Your task to perform on an android device: Go to ESPN.com Image 0: 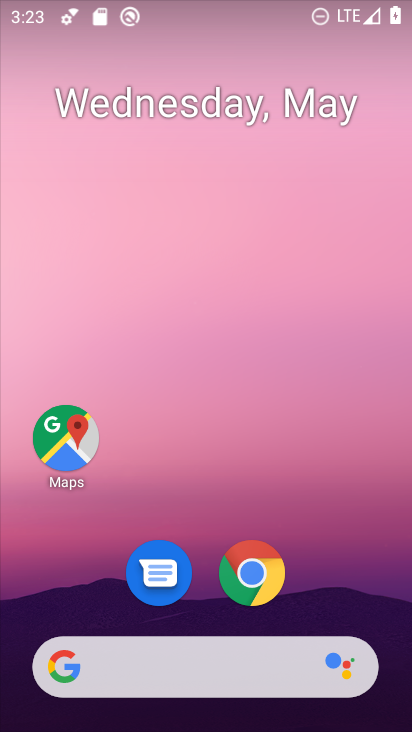
Step 0: click (247, 574)
Your task to perform on an android device: Go to ESPN.com Image 1: 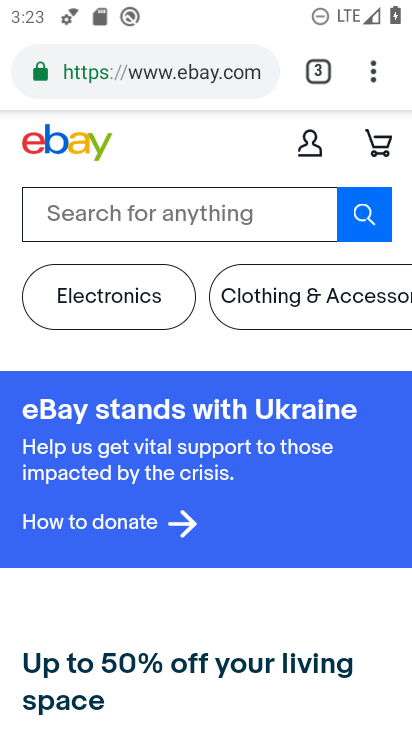
Step 1: click (161, 72)
Your task to perform on an android device: Go to ESPN.com Image 2: 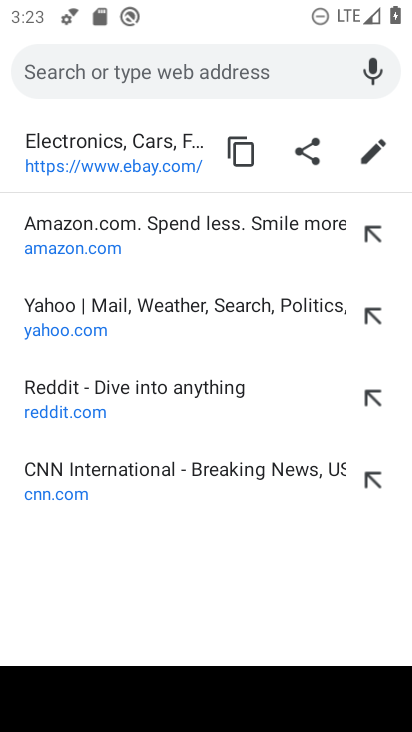
Step 2: type "ESPN.com"
Your task to perform on an android device: Go to ESPN.com Image 3: 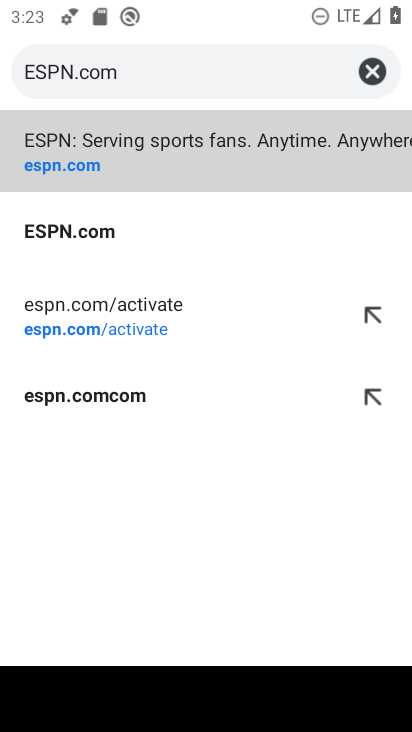
Step 3: click (63, 165)
Your task to perform on an android device: Go to ESPN.com Image 4: 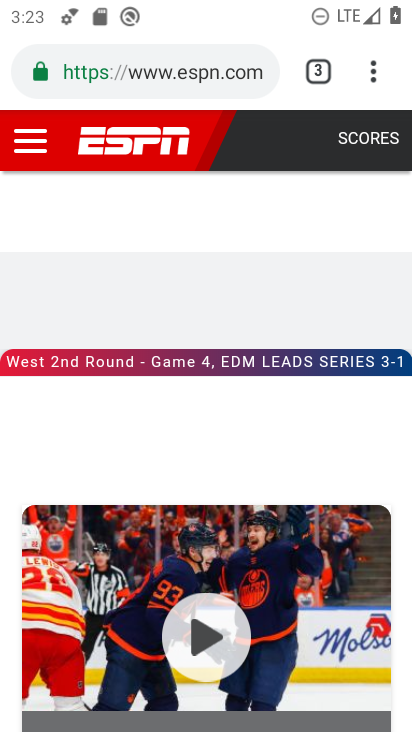
Step 4: task complete